Your task to perform on an android device: turn on notifications settings in the gmail app Image 0: 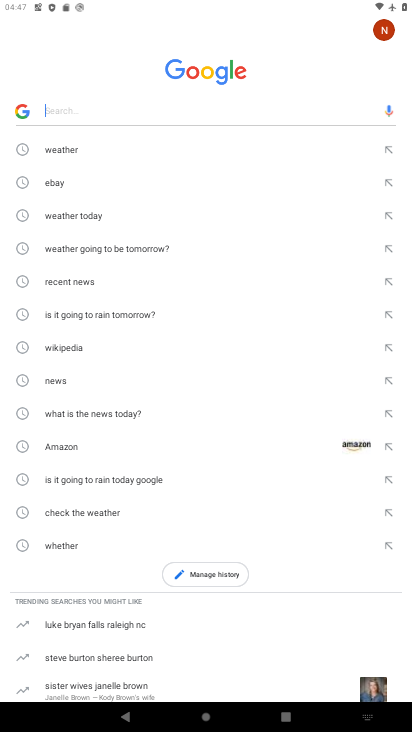
Step 0: press home button
Your task to perform on an android device: turn on notifications settings in the gmail app Image 1: 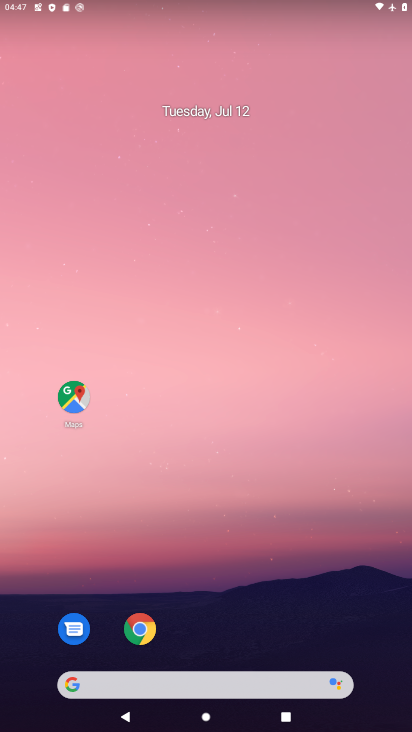
Step 1: drag from (279, 505) to (276, 146)
Your task to perform on an android device: turn on notifications settings in the gmail app Image 2: 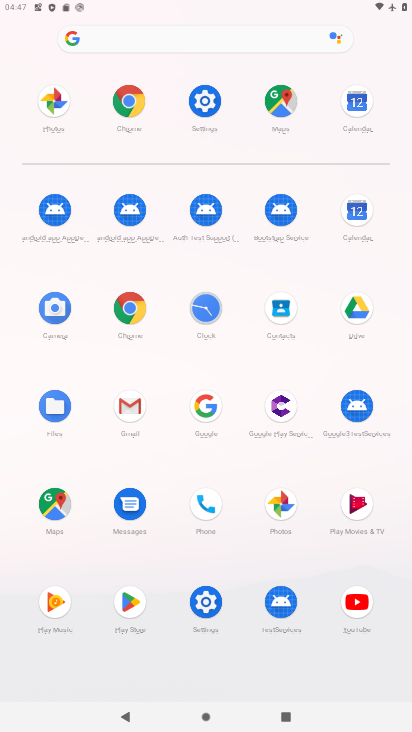
Step 2: click (130, 404)
Your task to perform on an android device: turn on notifications settings in the gmail app Image 3: 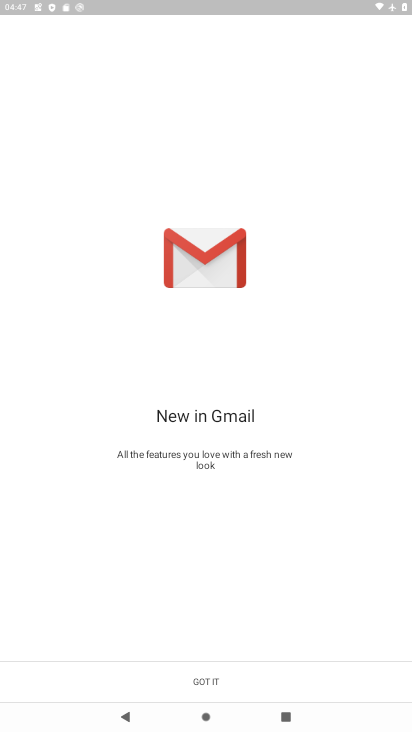
Step 3: click (202, 674)
Your task to perform on an android device: turn on notifications settings in the gmail app Image 4: 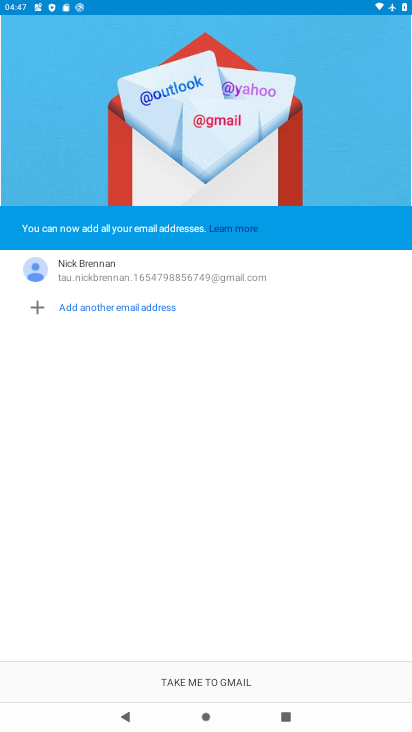
Step 4: click (208, 677)
Your task to perform on an android device: turn on notifications settings in the gmail app Image 5: 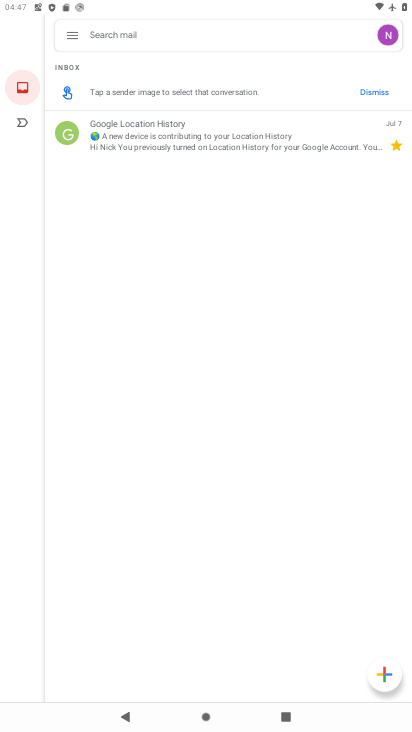
Step 5: click (64, 36)
Your task to perform on an android device: turn on notifications settings in the gmail app Image 6: 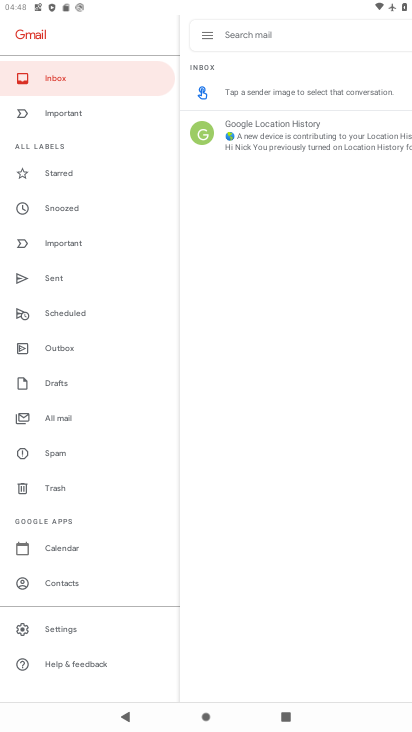
Step 6: click (64, 630)
Your task to perform on an android device: turn on notifications settings in the gmail app Image 7: 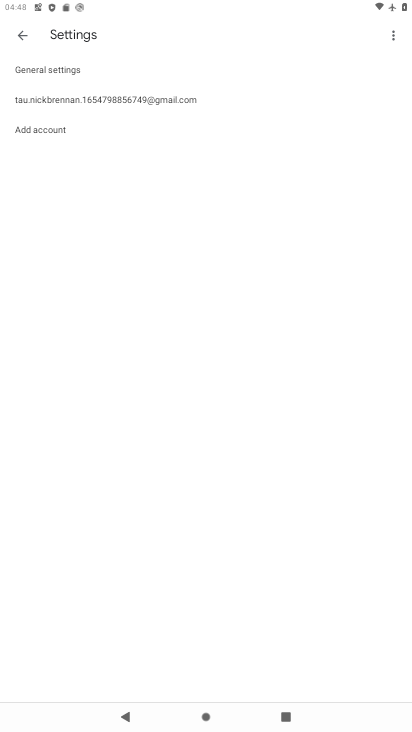
Step 7: click (143, 101)
Your task to perform on an android device: turn on notifications settings in the gmail app Image 8: 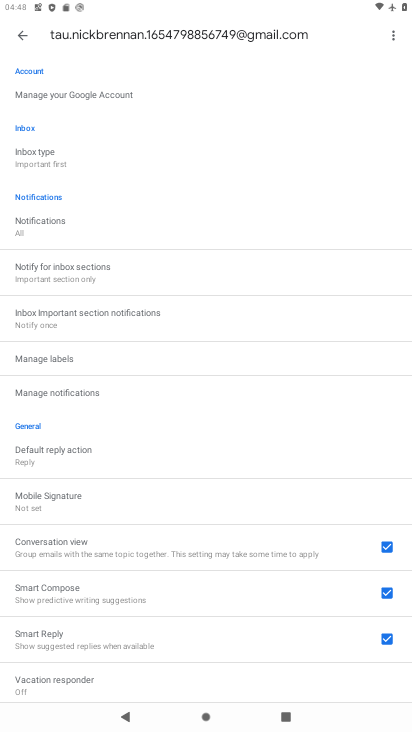
Step 8: click (96, 397)
Your task to perform on an android device: turn on notifications settings in the gmail app Image 9: 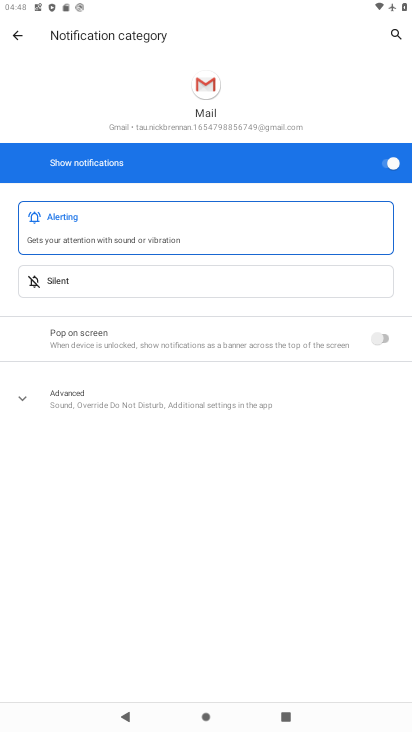
Step 9: task complete